Your task to perform on an android device: Add "amazon basics triple a" to the cart on bestbuy, then select checkout. Image 0: 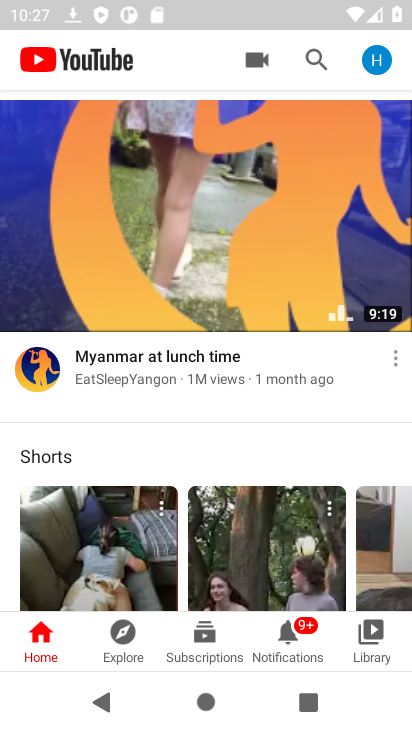
Step 0: press home button
Your task to perform on an android device: Add "amazon basics triple a" to the cart on bestbuy, then select checkout. Image 1: 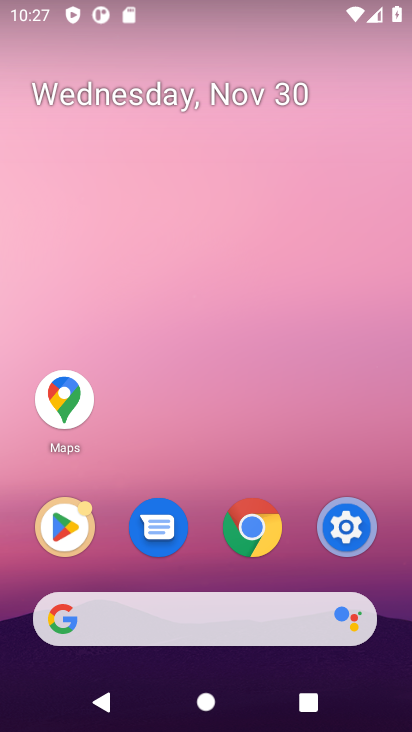
Step 1: click (259, 530)
Your task to perform on an android device: Add "amazon basics triple a" to the cart on bestbuy, then select checkout. Image 2: 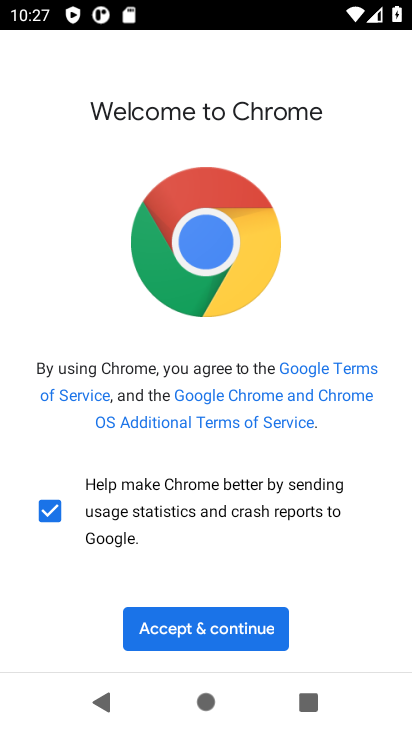
Step 2: click (208, 620)
Your task to perform on an android device: Add "amazon basics triple a" to the cart on bestbuy, then select checkout. Image 3: 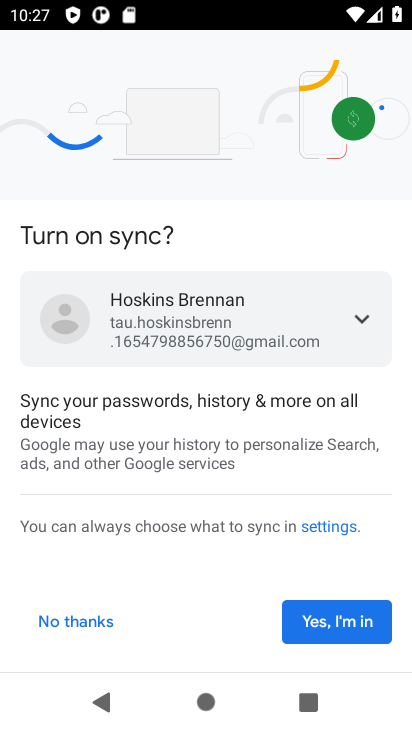
Step 3: click (93, 628)
Your task to perform on an android device: Add "amazon basics triple a" to the cart on bestbuy, then select checkout. Image 4: 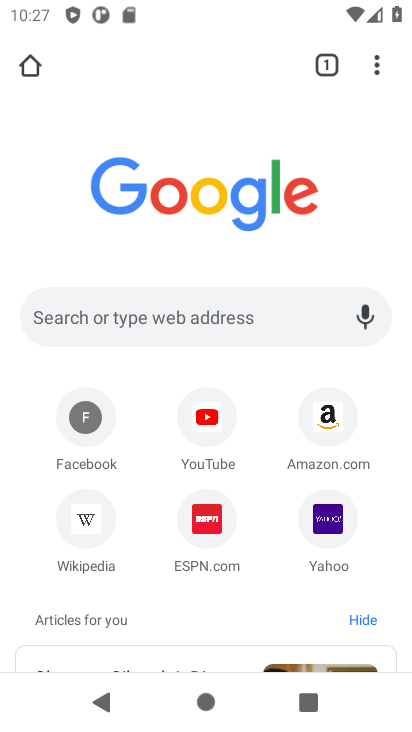
Step 4: click (150, 317)
Your task to perform on an android device: Add "amazon basics triple a" to the cart on bestbuy, then select checkout. Image 5: 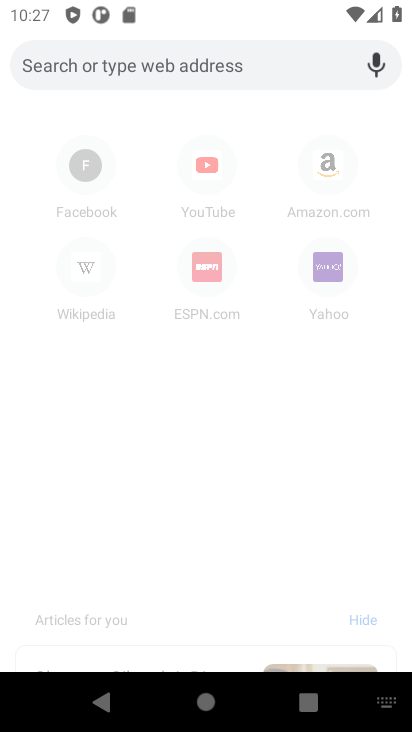
Step 5: type "bestbuy.com"
Your task to perform on an android device: Add "amazon basics triple a" to the cart on bestbuy, then select checkout. Image 6: 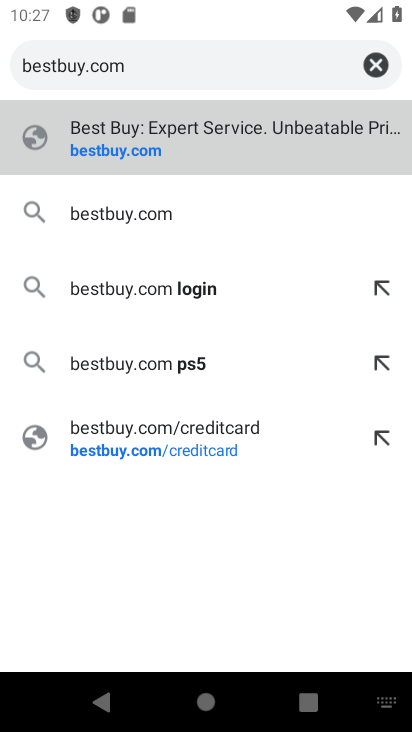
Step 6: click (126, 162)
Your task to perform on an android device: Add "amazon basics triple a" to the cart on bestbuy, then select checkout. Image 7: 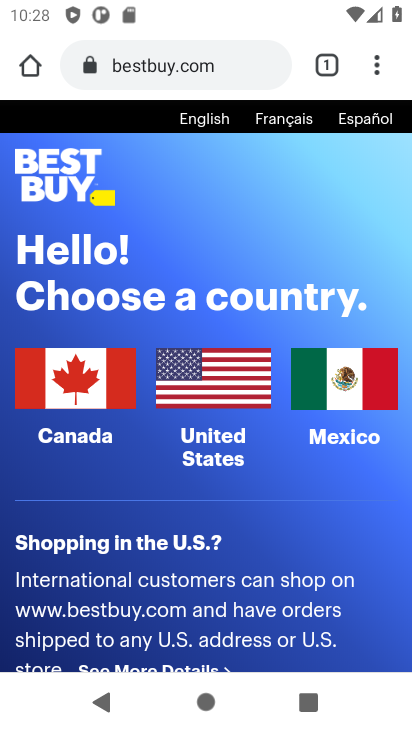
Step 7: click (191, 377)
Your task to perform on an android device: Add "amazon basics triple a" to the cart on bestbuy, then select checkout. Image 8: 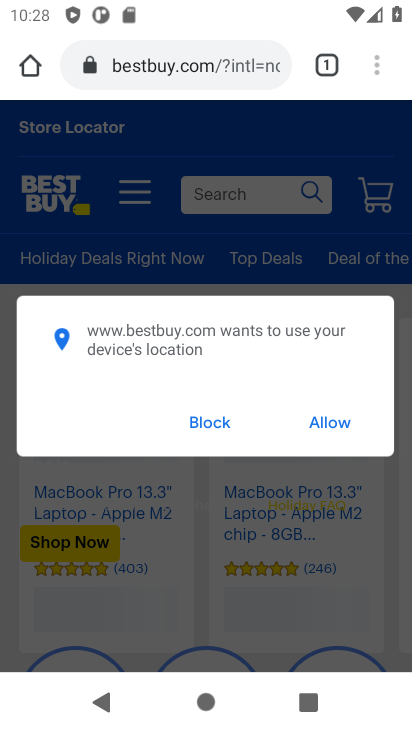
Step 8: click (197, 416)
Your task to perform on an android device: Add "amazon basics triple a" to the cart on bestbuy, then select checkout. Image 9: 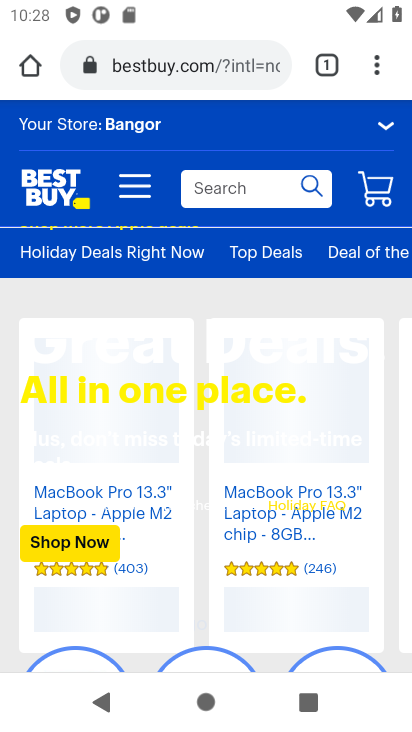
Step 9: click (226, 198)
Your task to perform on an android device: Add "amazon basics triple a" to the cart on bestbuy, then select checkout. Image 10: 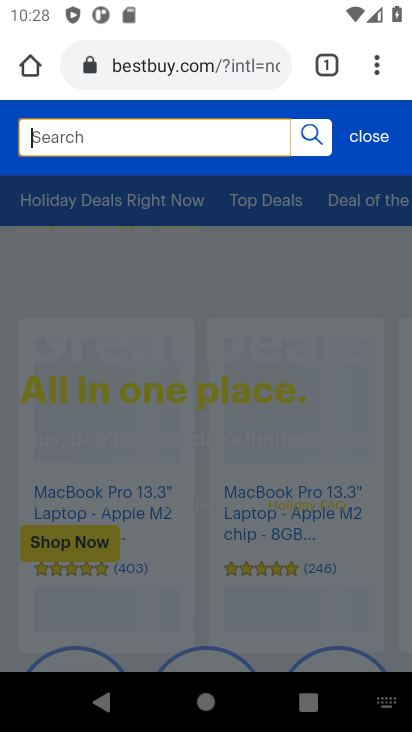
Step 10: type "amazon basics triple a"
Your task to perform on an android device: Add "amazon basics triple a" to the cart on bestbuy, then select checkout. Image 11: 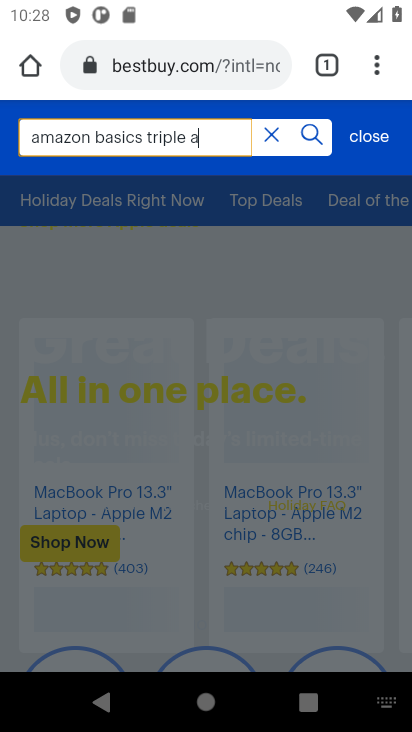
Step 11: click (311, 135)
Your task to perform on an android device: Add "amazon basics triple a" to the cart on bestbuy, then select checkout. Image 12: 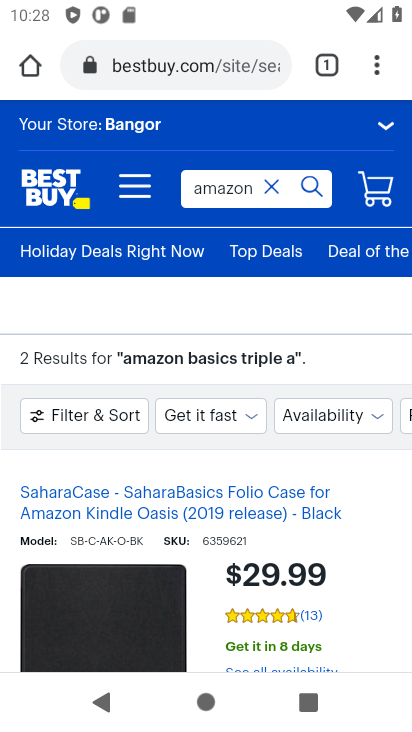
Step 12: task complete